Your task to perform on an android device: change notification settings in the gmail app Image 0: 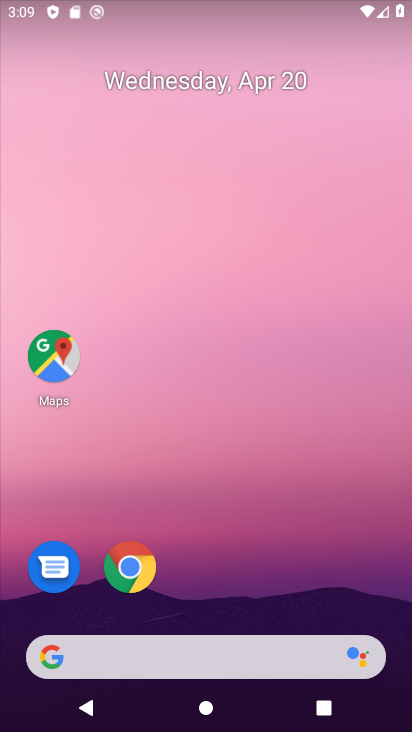
Step 0: click (277, 76)
Your task to perform on an android device: change notification settings in the gmail app Image 1: 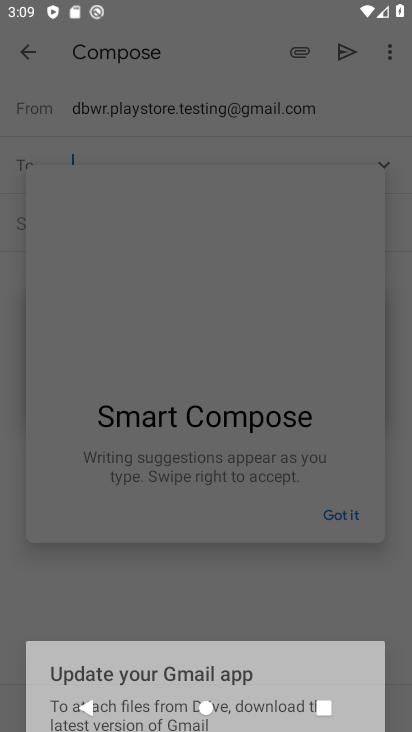
Step 1: press home button
Your task to perform on an android device: change notification settings in the gmail app Image 2: 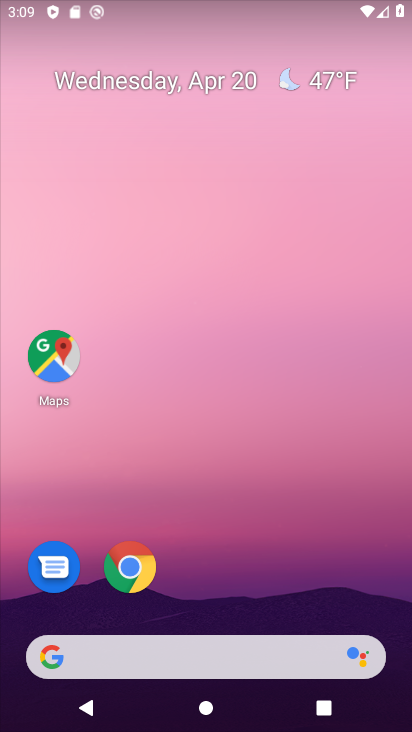
Step 2: drag from (262, 616) to (205, 145)
Your task to perform on an android device: change notification settings in the gmail app Image 3: 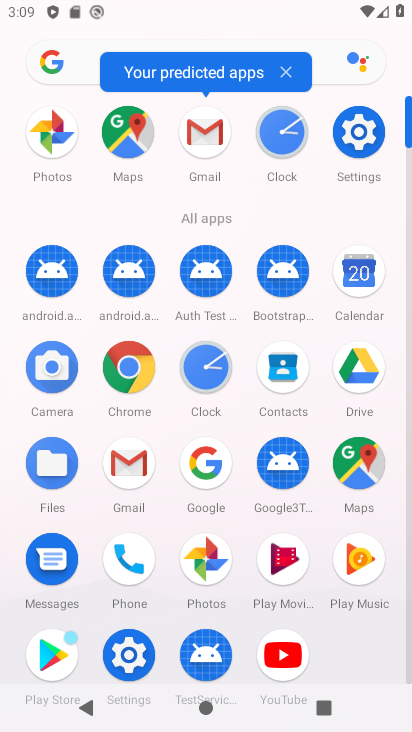
Step 3: click (118, 466)
Your task to perform on an android device: change notification settings in the gmail app Image 4: 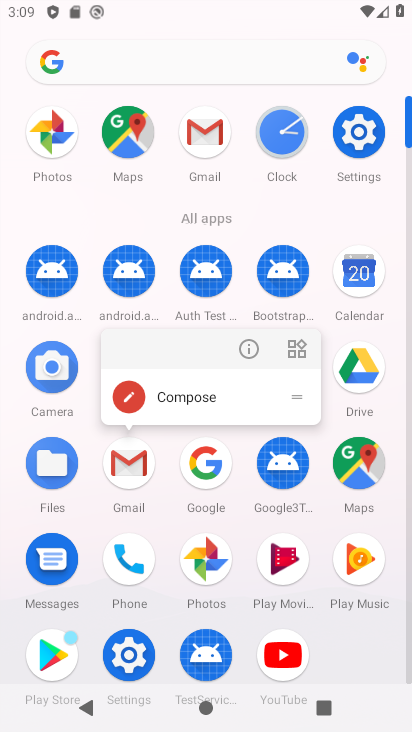
Step 4: click (122, 465)
Your task to perform on an android device: change notification settings in the gmail app Image 5: 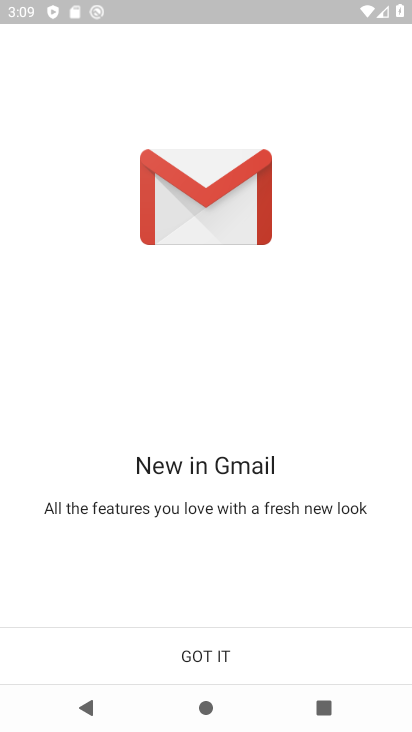
Step 5: click (225, 636)
Your task to perform on an android device: change notification settings in the gmail app Image 6: 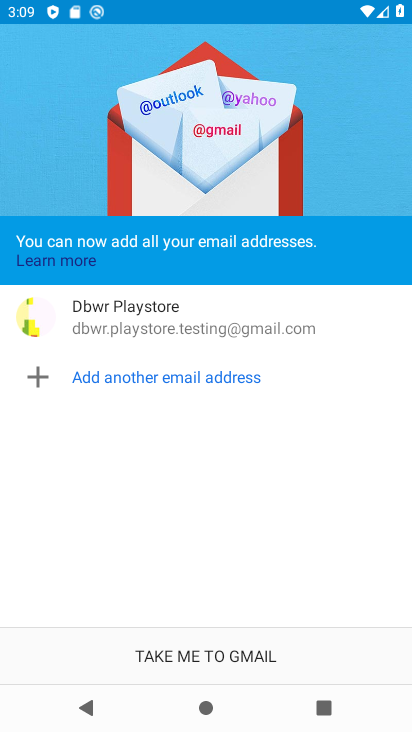
Step 6: click (225, 636)
Your task to perform on an android device: change notification settings in the gmail app Image 7: 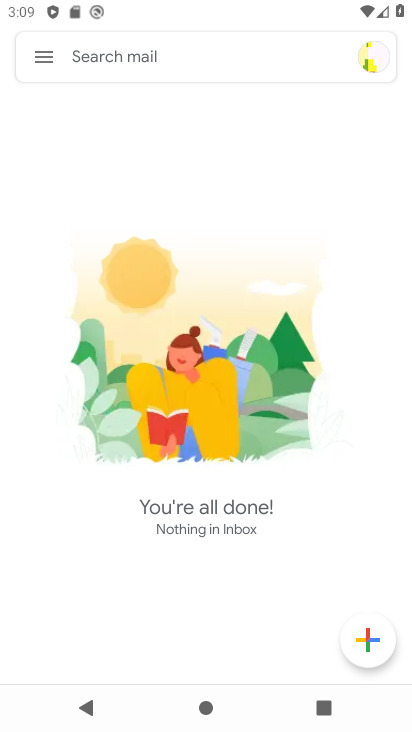
Step 7: click (24, 62)
Your task to perform on an android device: change notification settings in the gmail app Image 8: 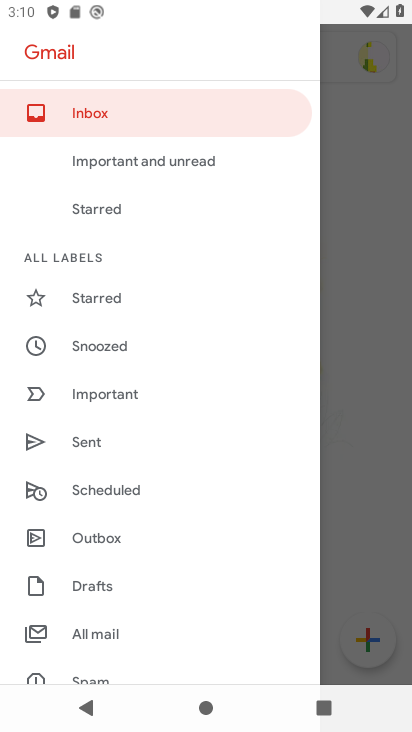
Step 8: drag from (117, 631) to (150, 146)
Your task to perform on an android device: change notification settings in the gmail app Image 9: 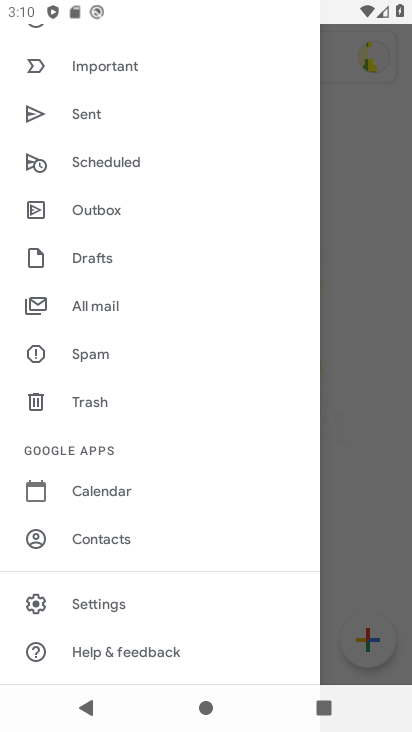
Step 9: click (134, 591)
Your task to perform on an android device: change notification settings in the gmail app Image 10: 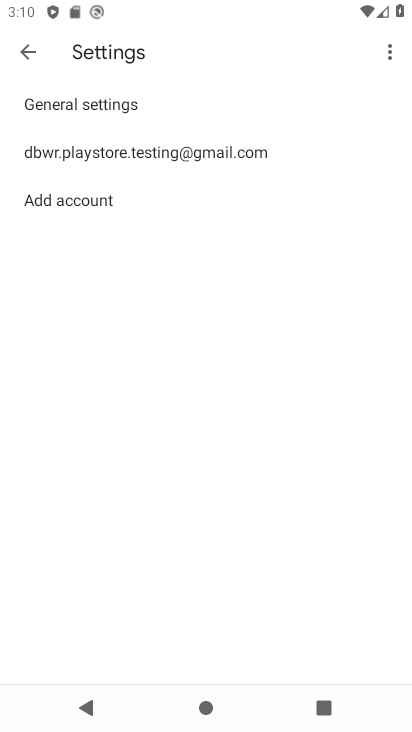
Step 10: click (115, 165)
Your task to perform on an android device: change notification settings in the gmail app Image 11: 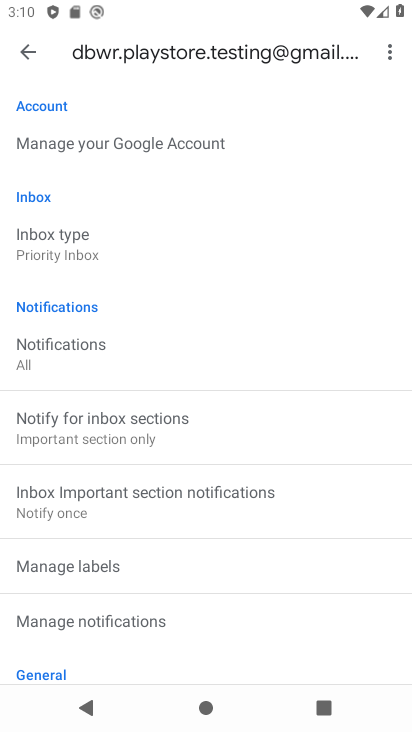
Step 11: click (122, 374)
Your task to perform on an android device: change notification settings in the gmail app Image 12: 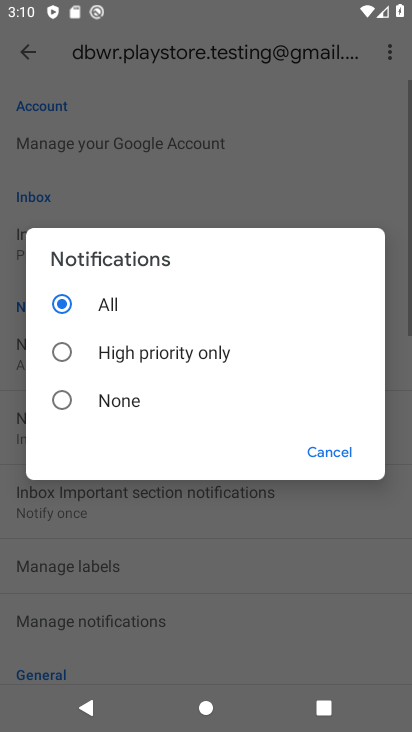
Step 12: click (122, 374)
Your task to perform on an android device: change notification settings in the gmail app Image 13: 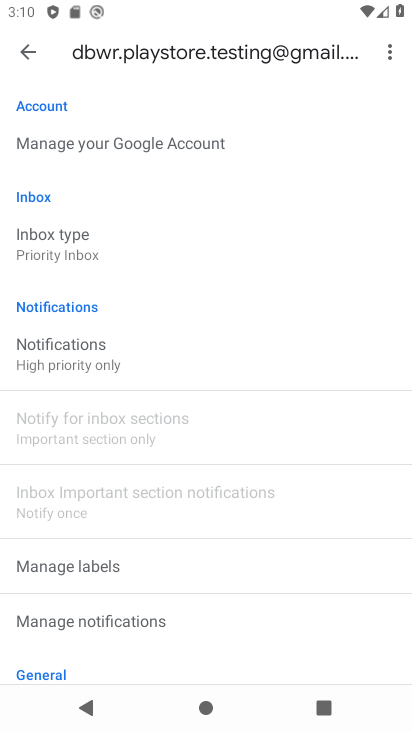
Step 13: task complete